Your task to perform on an android device: read, delete, or share a saved page in the chrome app Image 0: 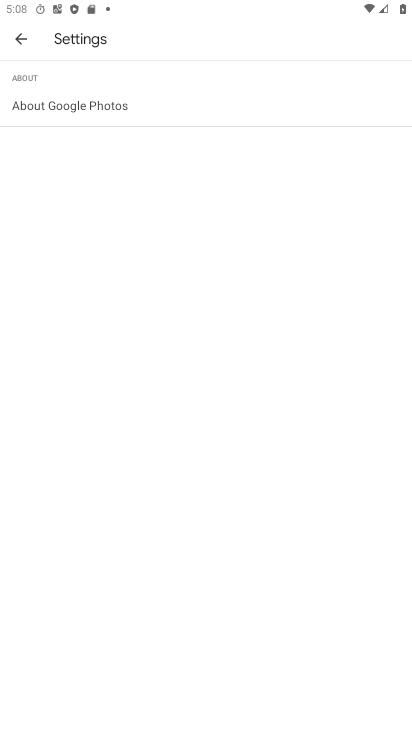
Step 0: press home button
Your task to perform on an android device: read, delete, or share a saved page in the chrome app Image 1: 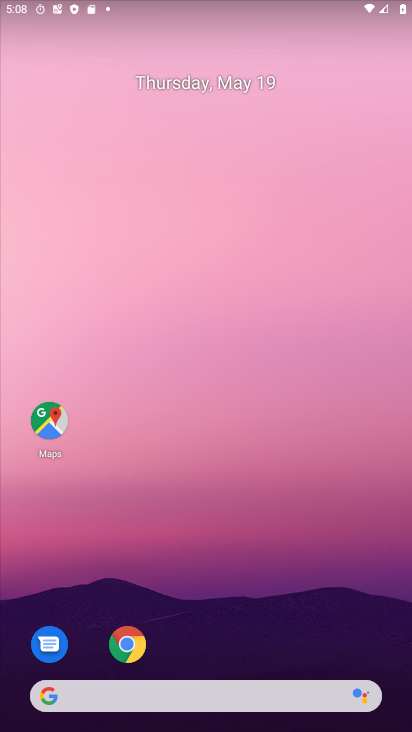
Step 1: drag from (148, 676) to (180, 256)
Your task to perform on an android device: read, delete, or share a saved page in the chrome app Image 2: 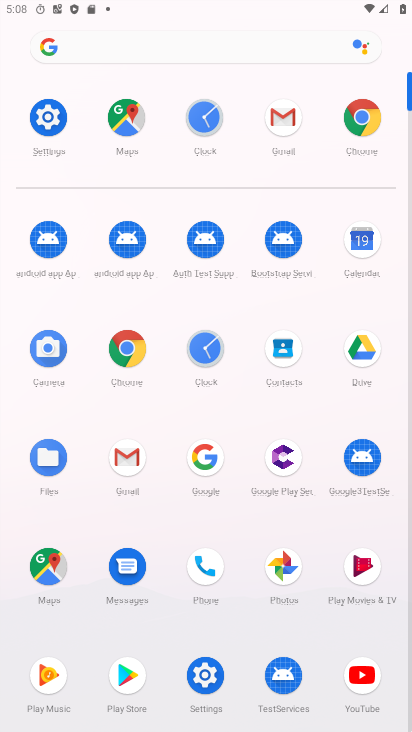
Step 2: click (367, 120)
Your task to perform on an android device: read, delete, or share a saved page in the chrome app Image 3: 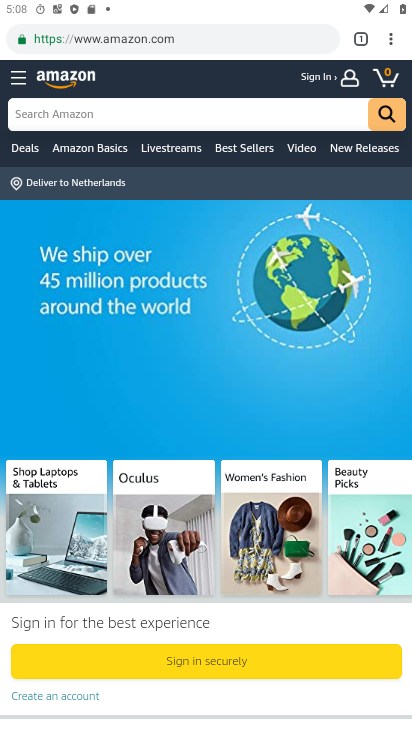
Step 3: click (395, 39)
Your task to perform on an android device: read, delete, or share a saved page in the chrome app Image 4: 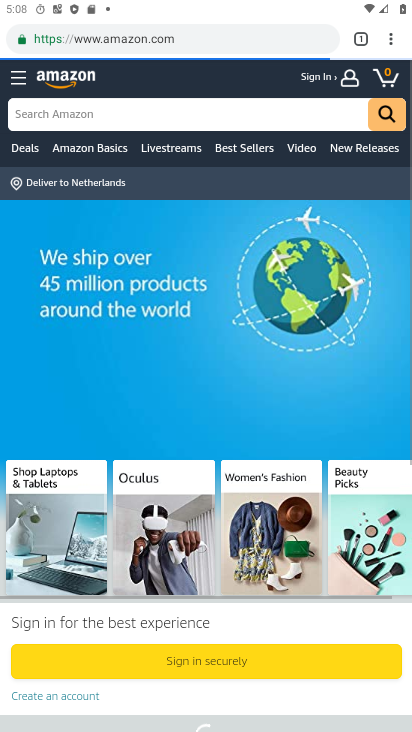
Step 4: click (390, 35)
Your task to perform on an android device: read, delete, or share a saved page in the chrome app Image 5: 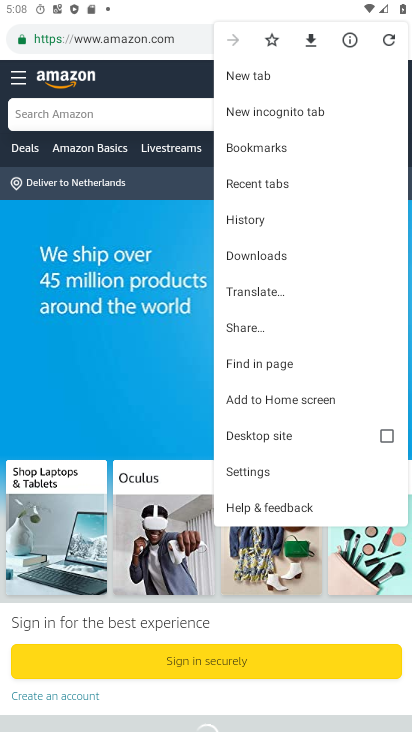
Step 5: click (270, 250)
Your task to perform on an android device: read, delete, or share a saved page in the chrome app Image 6: 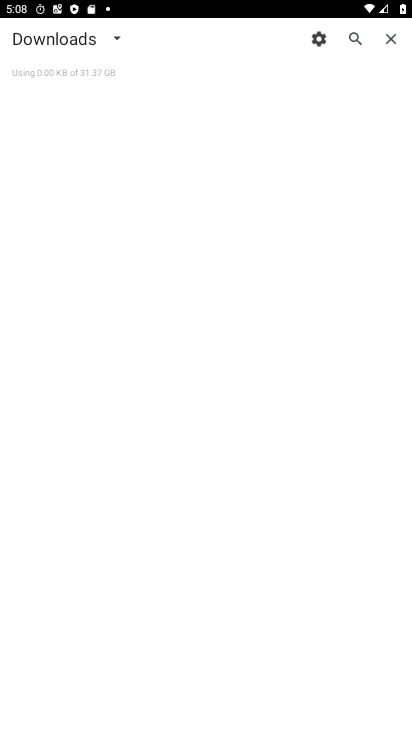
Step 6: click (116, 42)
Your task to perform on an android device: read, delete, or share a saved page in the chrome app Image 7: 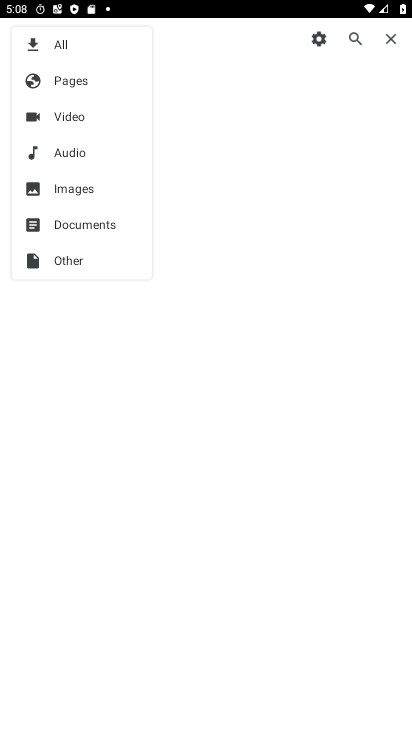
Step 7: click (80, 83)
Your task to perform on an android device: read, delete, or share a saved page in the chrome app Image 8: 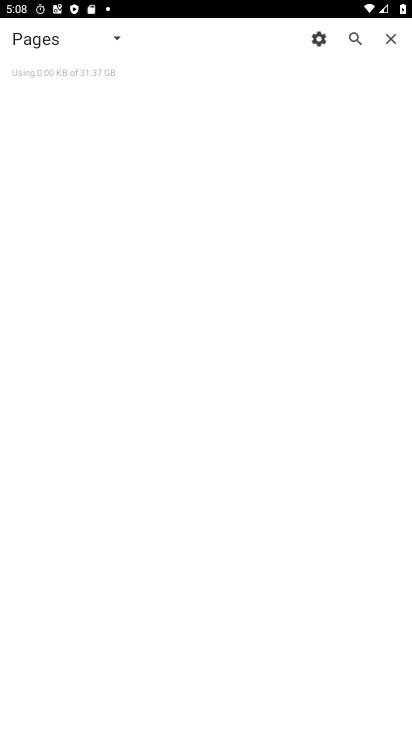
Step 8: task complete